Your task to perform on an android device: find photos in the google photos app Image 0: 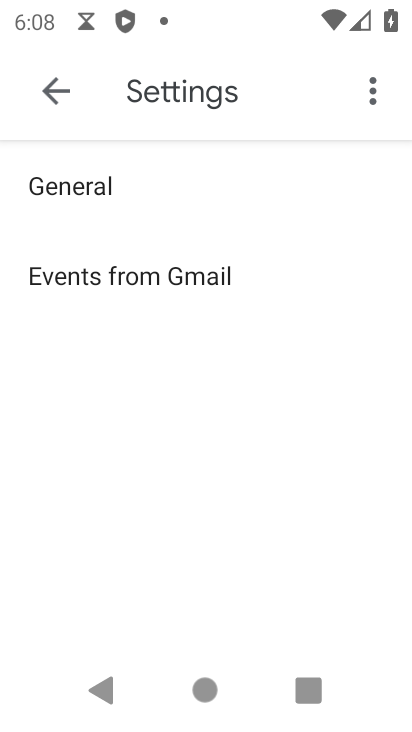
Step 0: press home button
Your task to perform on an android device: find photos in the google photos app Image 1: 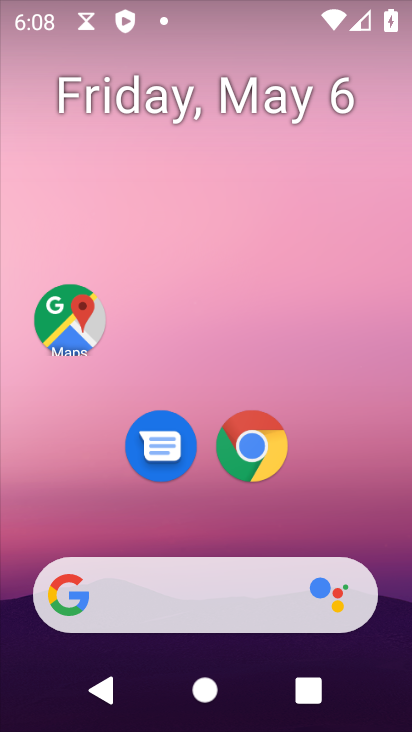
Step 1: drag from (287, 545) to (293, 117)
Your task to perform on an android device: find photos in the google photos app Image 2: 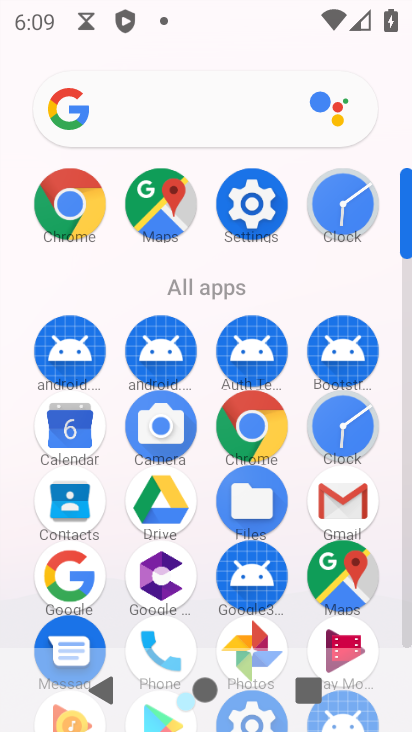
Step 2: click (253, 635)
Your task to perform on an android device: find photos in the google photos app Image 3: 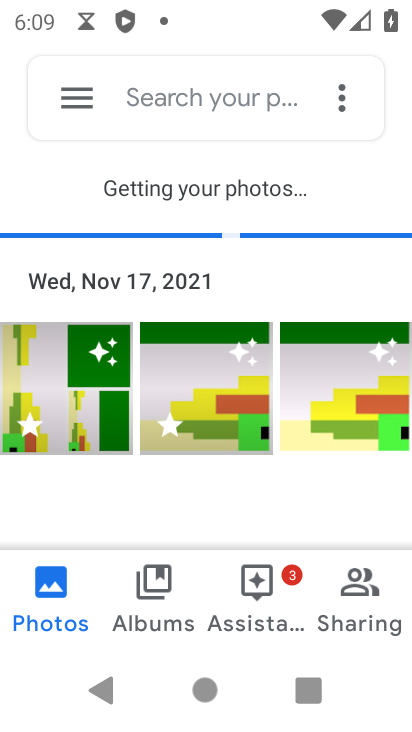
Step 3: click (214, 98)
Your task to perform on an android device: find photos in the google photos app Image 4: 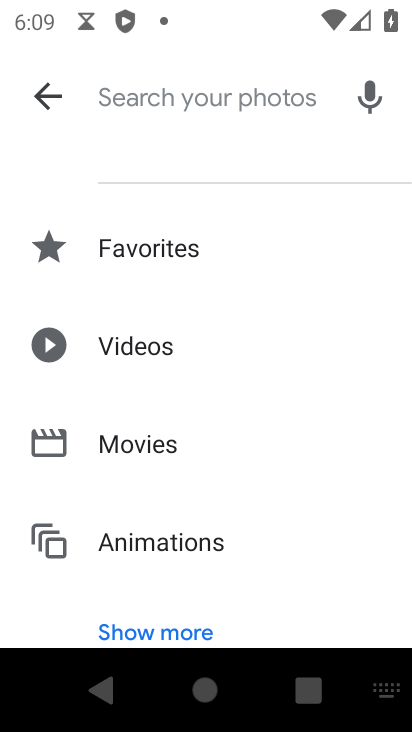
Step 4: click (156, 243)
Your task to perform on an android device: find photos in the google photos app Image 5: 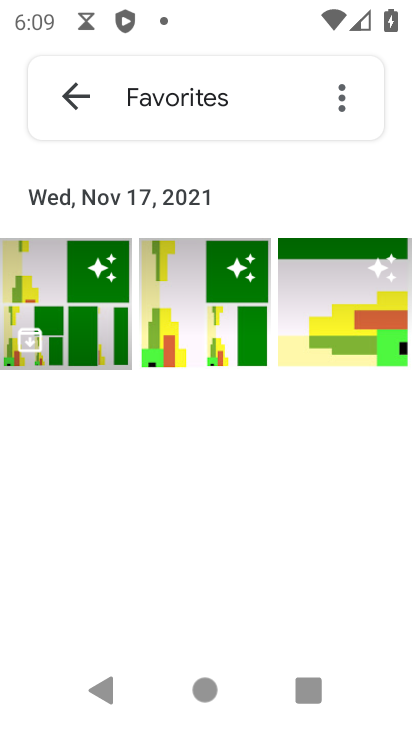
Step 5: task complete